Your task to perform on an android device: Open my contact list Image 0: 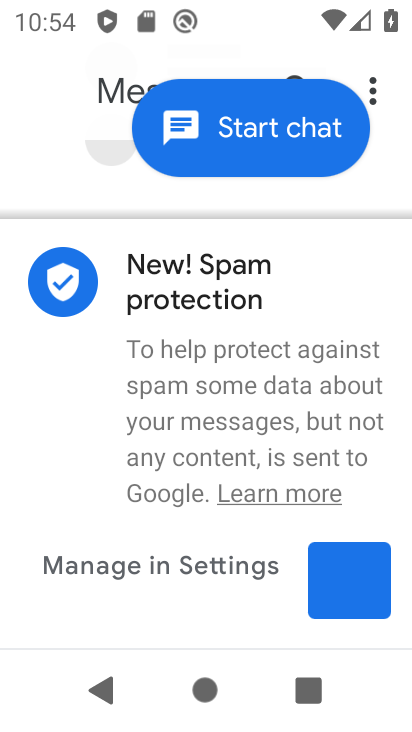
Step 0: press home button
Your task to perform on an android device: Open my contact list Image 1: 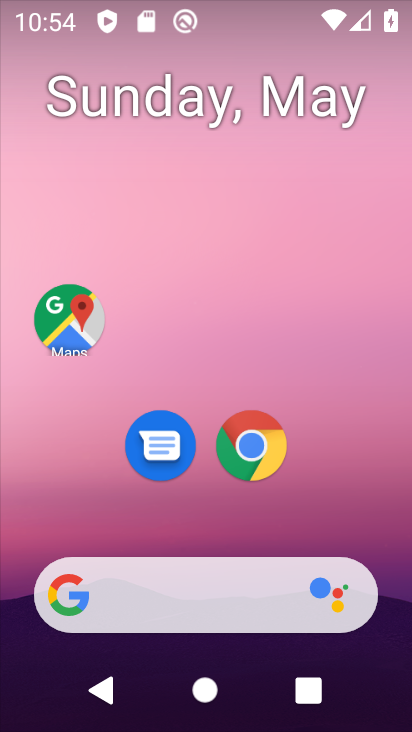
Step 1: drag from (301, 495) to (337, 92)
Your task to perform on an android device: Open my contact list Image 2: 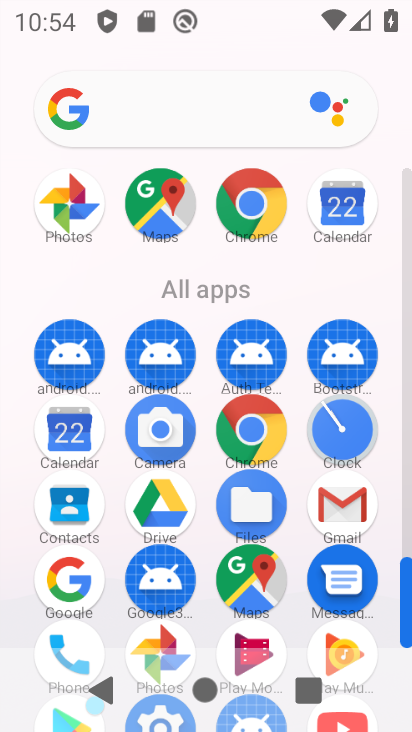
Step 2: click (85, 510)
Your task to perform on an android device: Open my contact list Image 3: 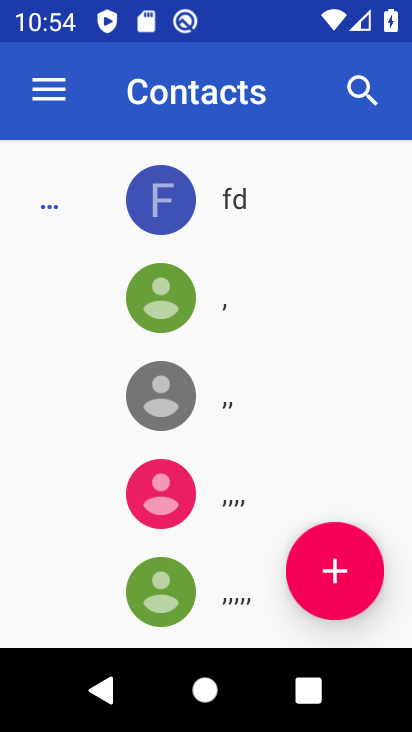
Step 3: task complete